Your task to perform on an android device: turn on javascript in the chrome app Image 0: 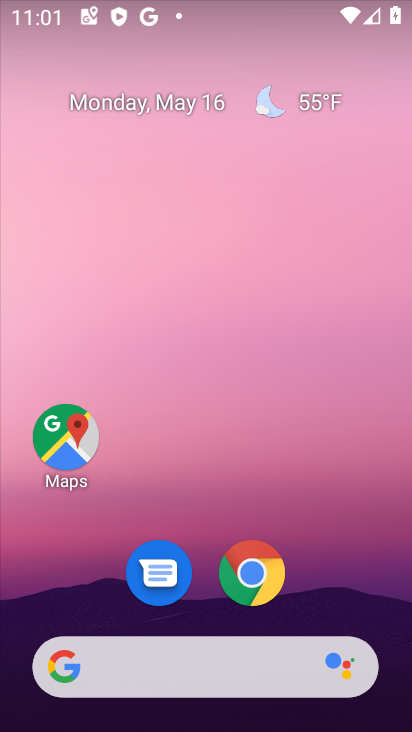
Step 0: click (268, 584)
Your task to perform on an android device: turn on javascript in the chrome app Image 1: 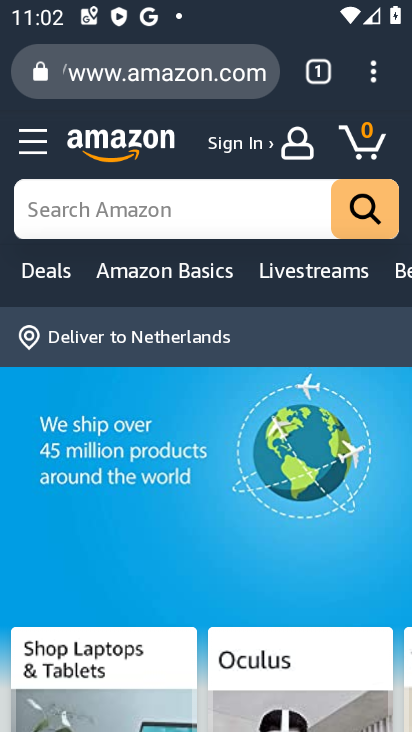
Step 1: click (380, 90)
Your task to perform on an android device: turn on javascript in the chrome app Image 2: 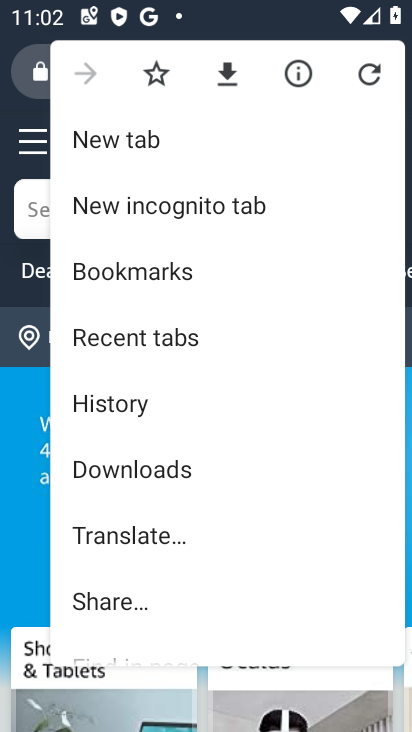
Step 2: drag from (245, 573) to (175, 326)
Your task to perform on an android device: turn on javascript in the chrome app Image 3: 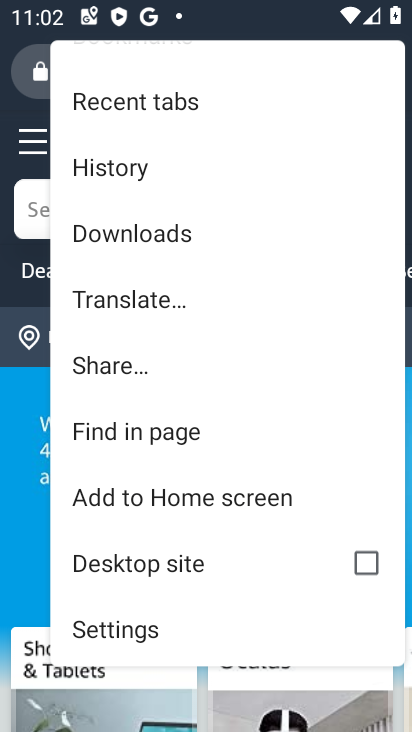
Step 3: click (175, 626)
Your task to perform on an android device: turn on javascript in the chrome app Image 4: 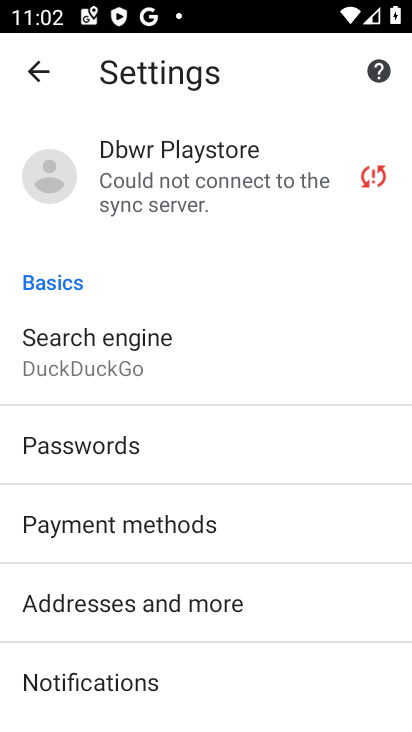
Step 4: drag from (218, 583) to (154, 277)
Your task to perform on an android device: turn on javascript in the chrome app Image 5: 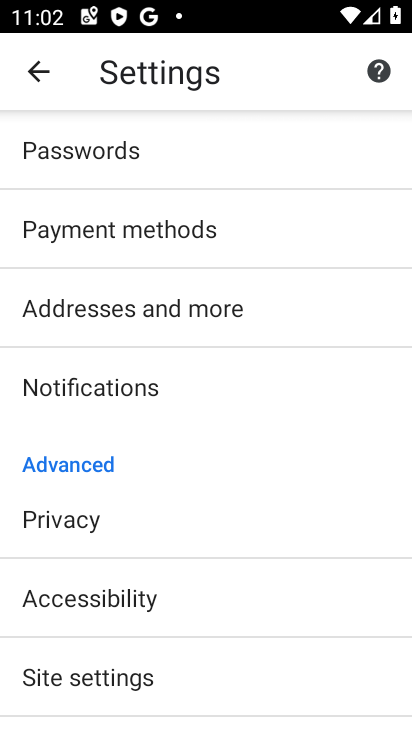
Step 5: click (185, 664)
Your task to perform on an android device: turn on javascript in the chrome app Image 6: 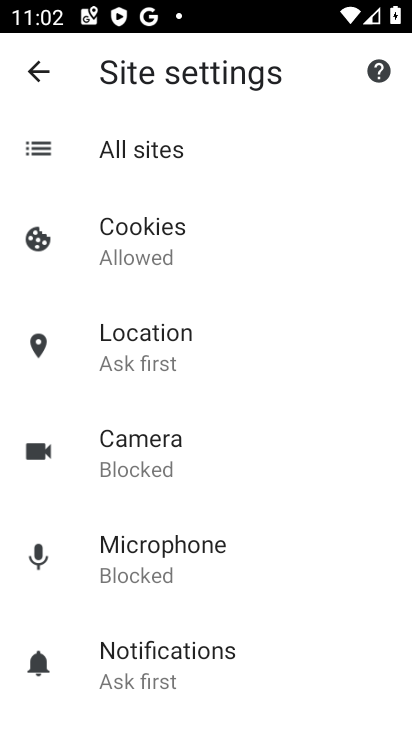
Step 6: drag from (227, 653) to (170, 332)
Your task to perform on an android device: turn on javascript in the chrome app Image 7: 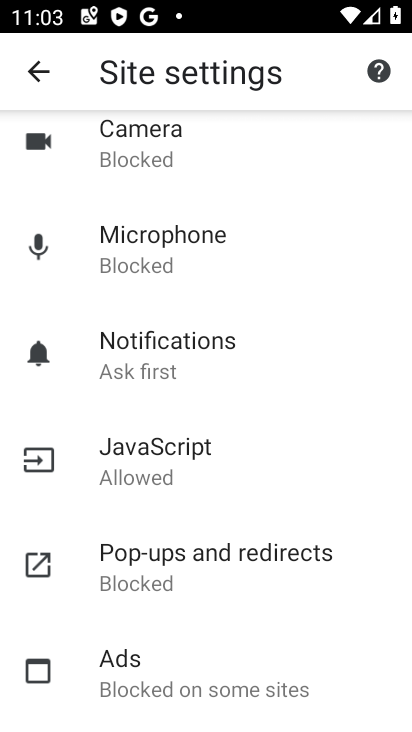
Step 7: click (142, 482)
Your task to perform on an android device: turn on javascript in the chrome app Image 8: 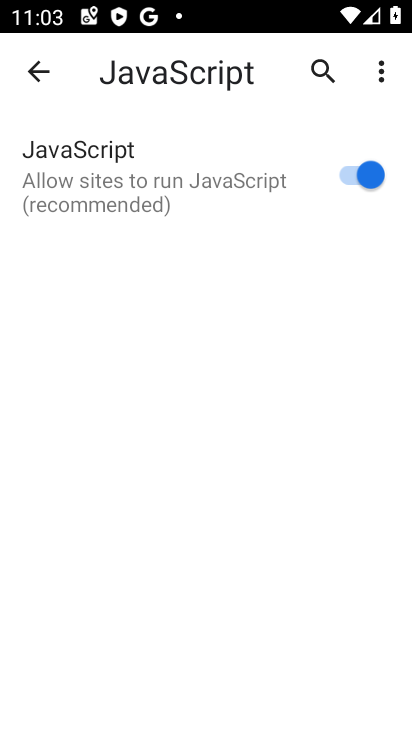
Step 8: task complete